Your task to perform on an android device: Go to network settings Image 0: 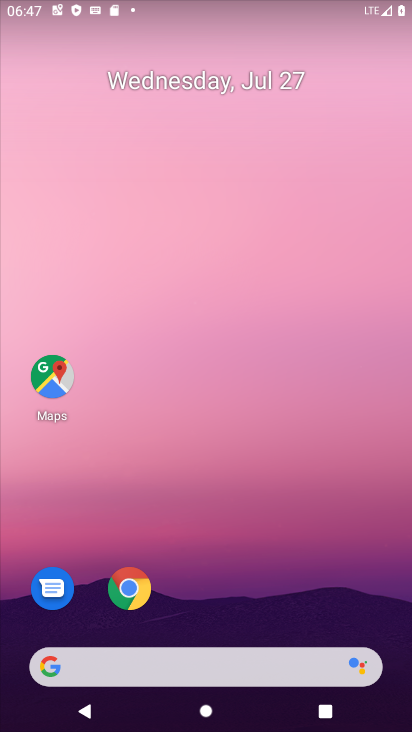
Step 0: drag from (287, 577) to (312, 27)
Your task to perform on an android device: Go to network settings Image 1: 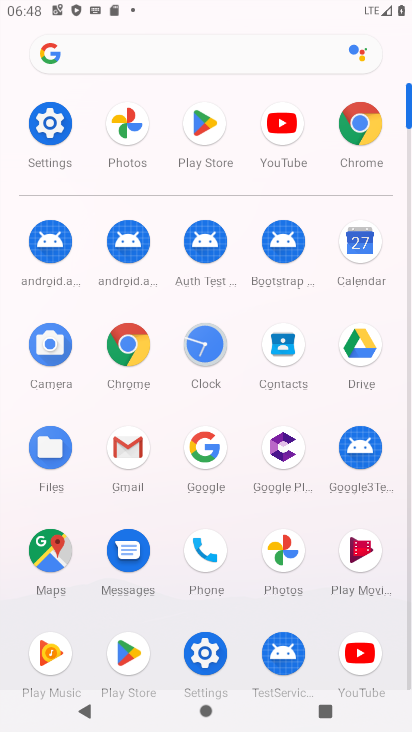
Step 1: click (36, 127)
Your task to perform on an android device: Go to network settings Image 2: 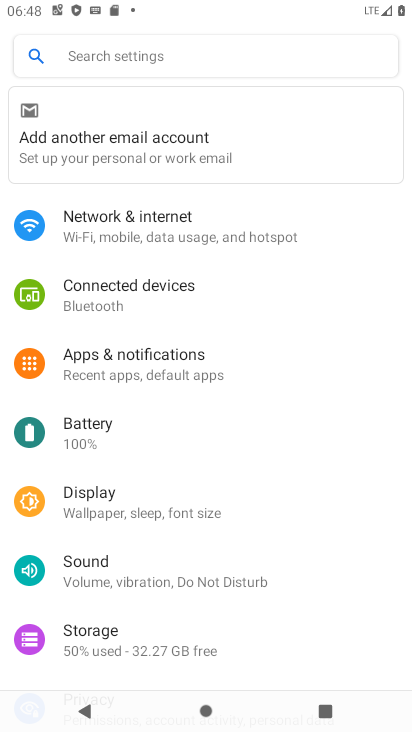
Step 2: click (209, 230)
Your task to perform on an android device: Go to network settings Image 3: 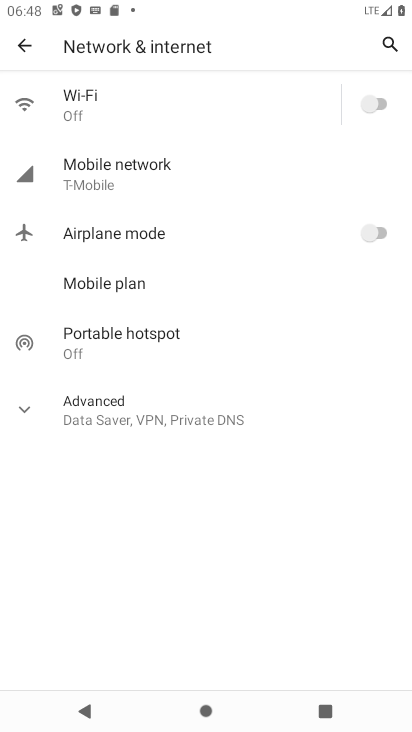
Step 3: task complete